Your task to perform on an android device: set the stopwatch Image 0: 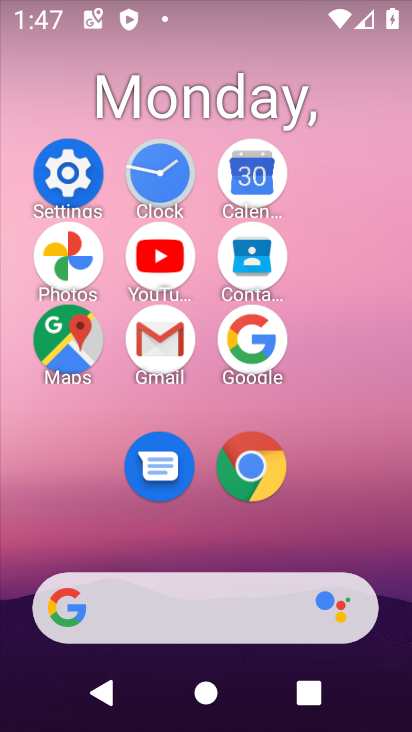
Step 0: click (156, 187)
Your task to perform on an android device: set the stopwatch Image 1: 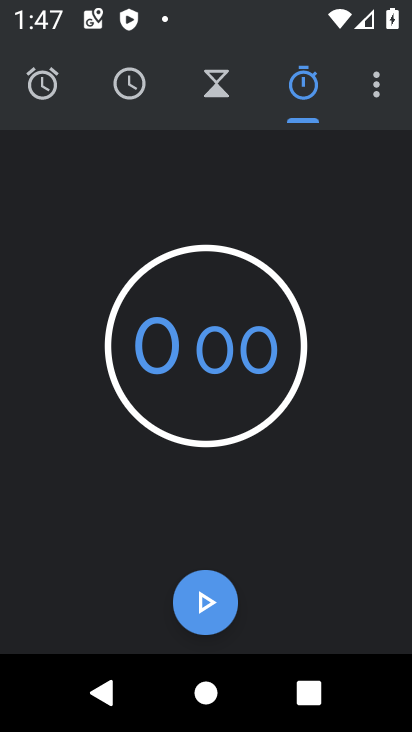
Step 1: click (206, 626)
Your task to perform on an android device: set the stopwatch Image 2: 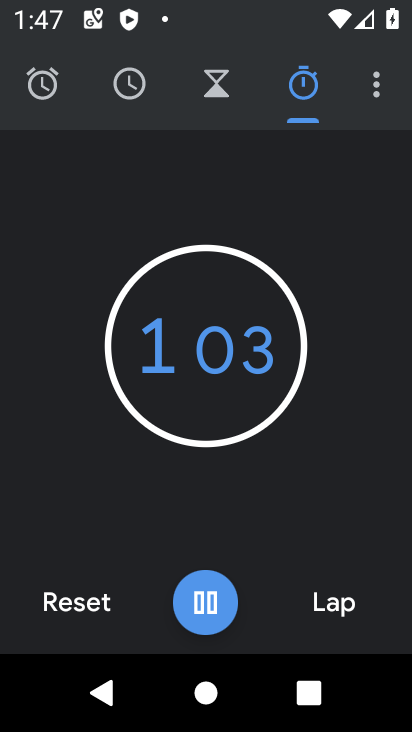
Step 2: task complete